Your task to perform on an android device: open a new tab in the chrome app Image 0: 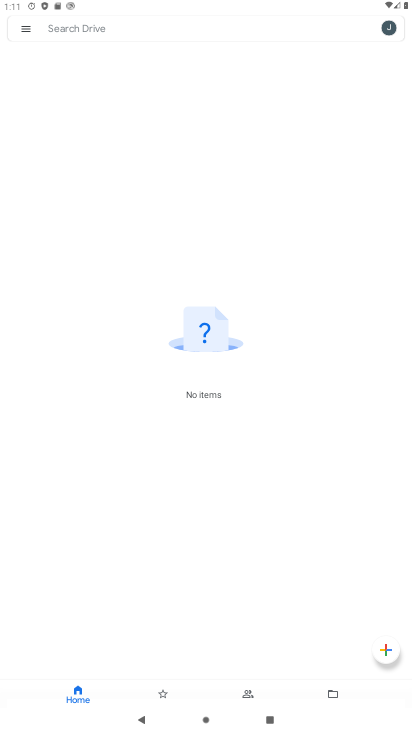
Step 0: press home button
Your task to perform on an android device: open a new tab in the chrome app Image 1: 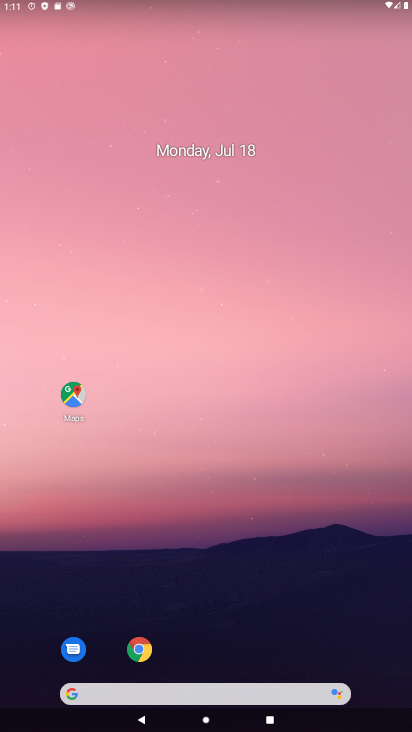
Step 1: drag from (218, 662) to (142, 103)
Your task to perform on an android device: open a new tab in the chrome app Image 2: 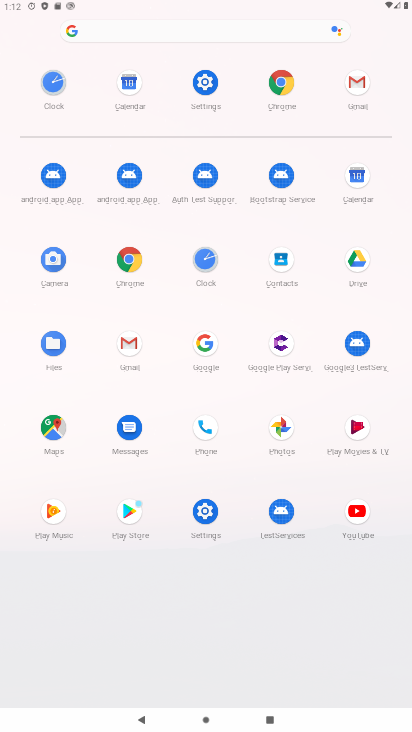
Step 2: click (117, 265)
Your task to perform on an android device: open a new tab in the chrome app Image 3: 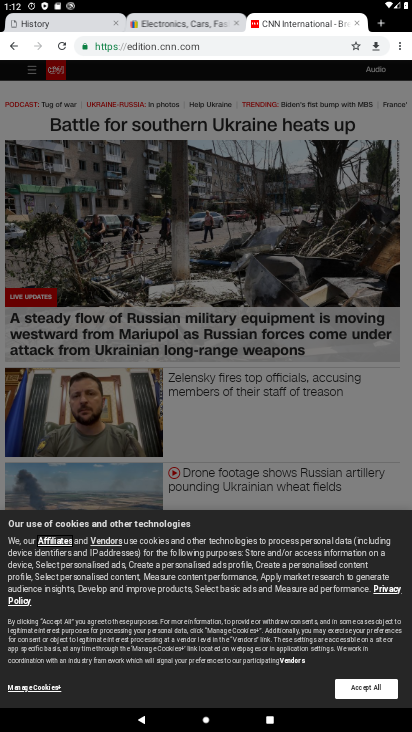
Step 3: click (379, 20)
Your task to perform on an android device: open a new tab in the chrome app Image 4: 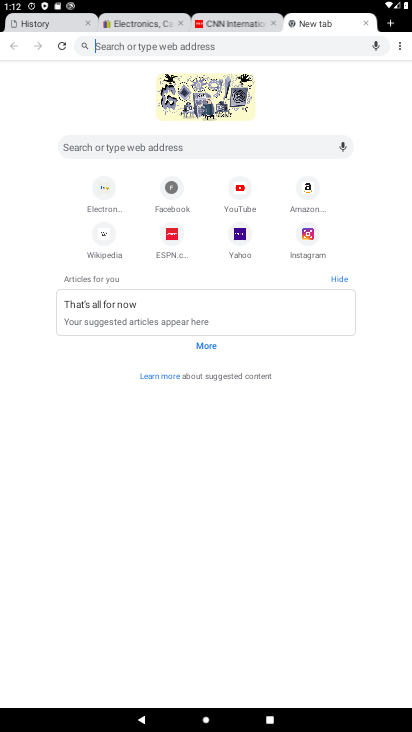
Step 4: task complete